Your task to perform on an android device: Go to Yahoo.com Image 0: 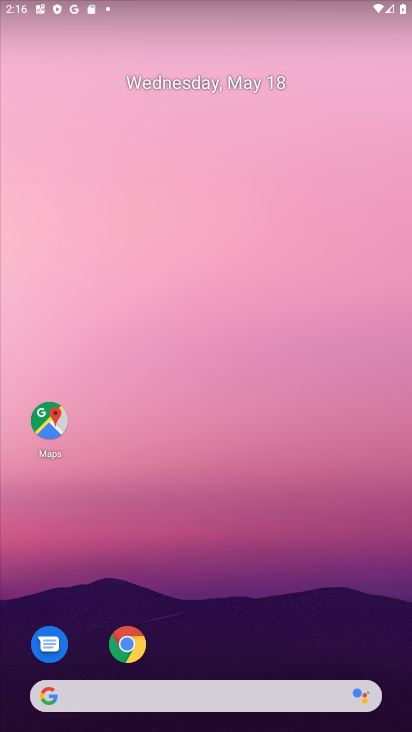
Step 0: click (126, 644)
Your task to perform on an android device: Go to Yahoo.com Image 1: 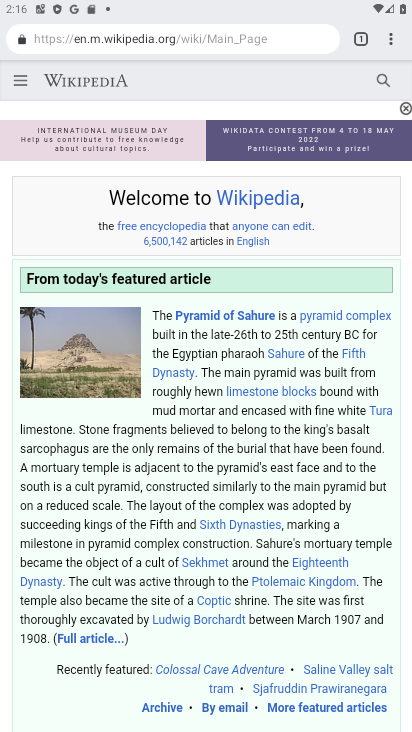
Step 1: click (316, 41)
Your task to perform on an android device: Go to Yahoo.com Image 2: 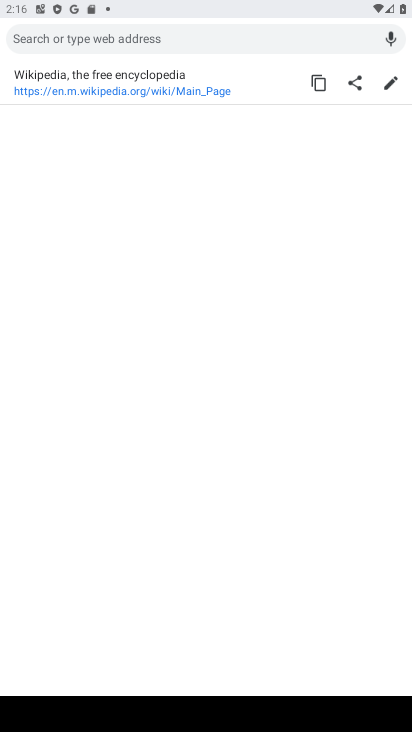
Step 2: type "Yahoo.com"
Your task to perform on an android device: Go to Yahoo.com Image 3: 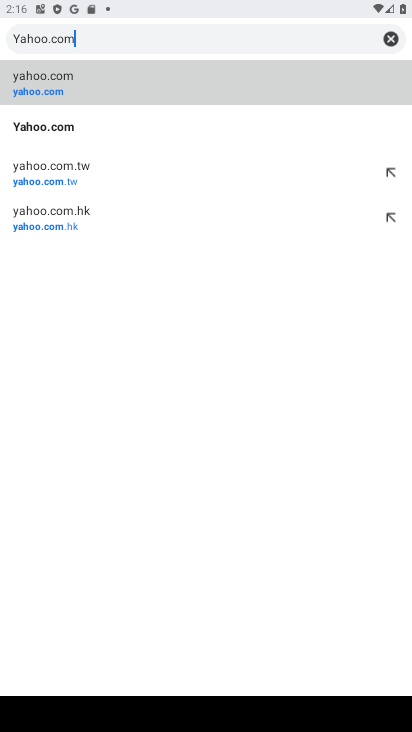
Step 3: click (63, 124)
Your task to perform on an android device: Go to Yahoo.com Image 4: 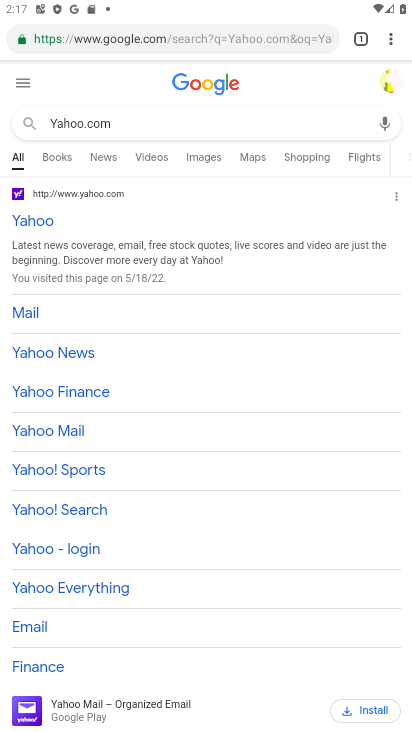
Step 4: click (39, 215)
Your task to perform on an android device: Go to Yahoo.com Image 5: 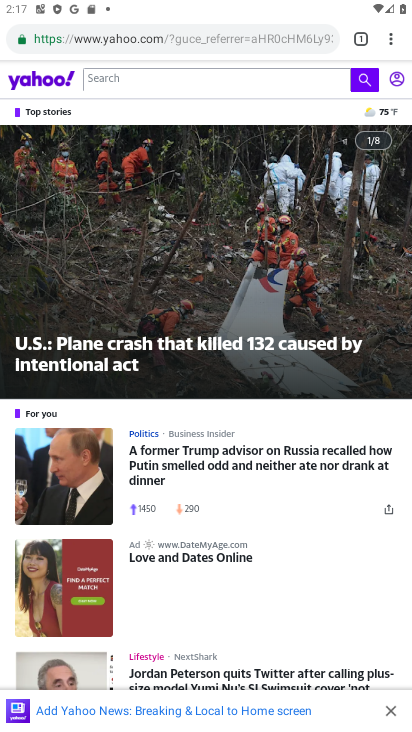
Step 5: task complete